Your task to perform on an android device: add a contact Image 0: 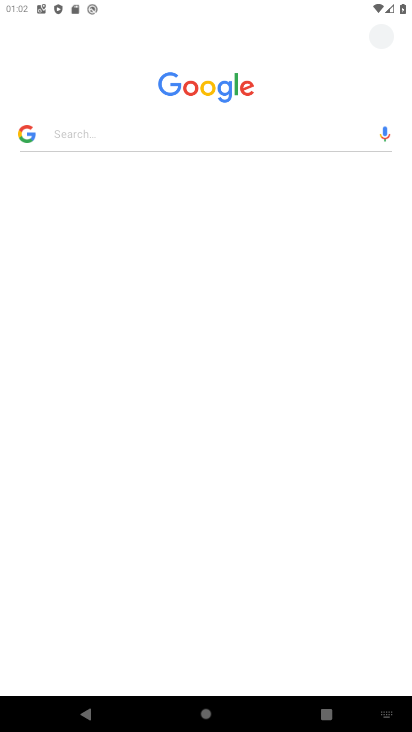
Step 0: press home button
Your task to perform on an android device: add a contact Image 1: 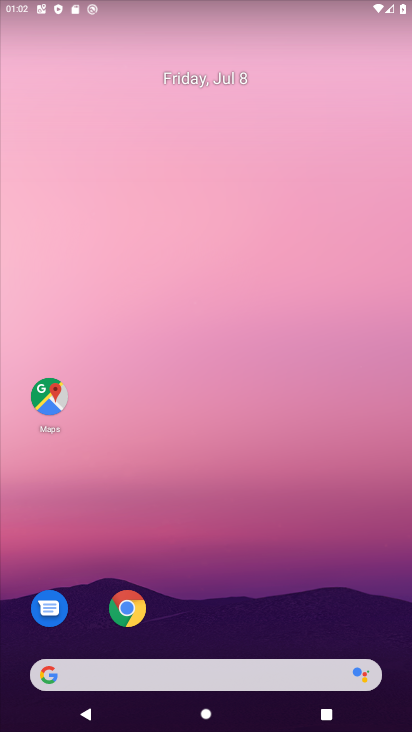
Step 1: drag from (207, 425) to (265, 6)
Your task to perform on an android device: add a contact Image 2: 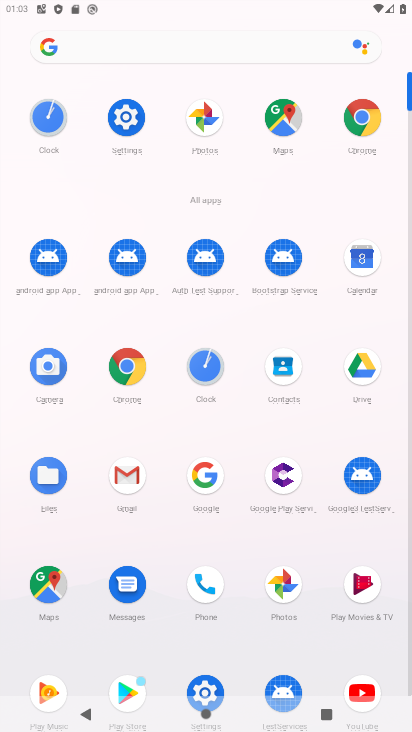
Step 2: click (280, 367)
Your task to perform on an android device: add a contact Image 3: 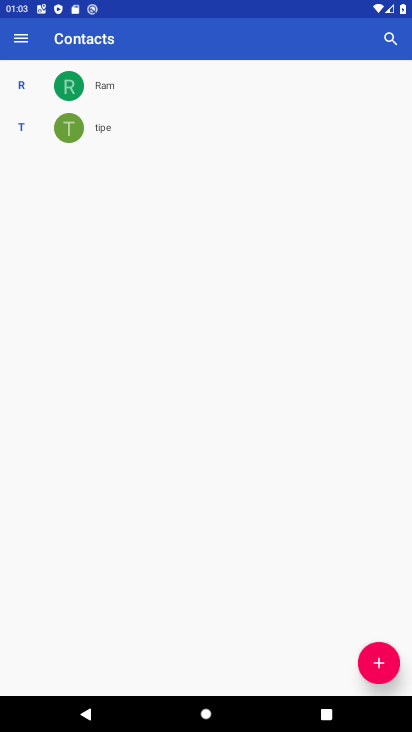
Step 3: click (383, 662)
Your task to perform on an android device: add a contact Image 4: 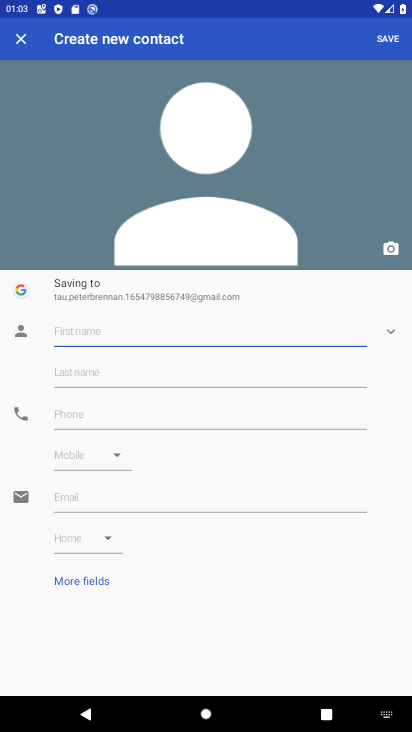
Step 4: type "vive"
Your task to perform on an android device: add a contact Image 5: 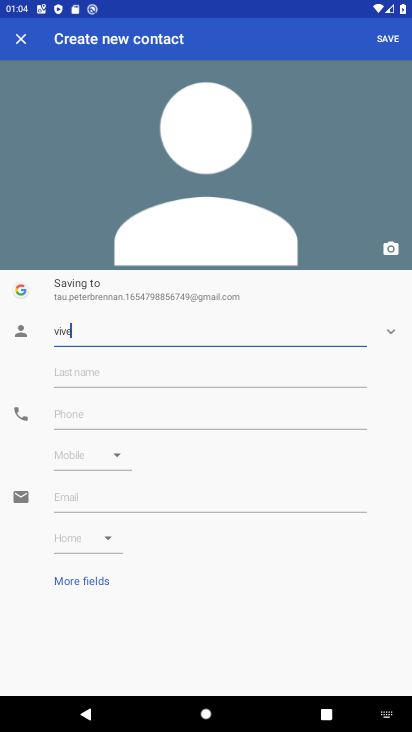
Step 5: click (73, 404)
Your task to perform on an android device: add a contact Image 6: 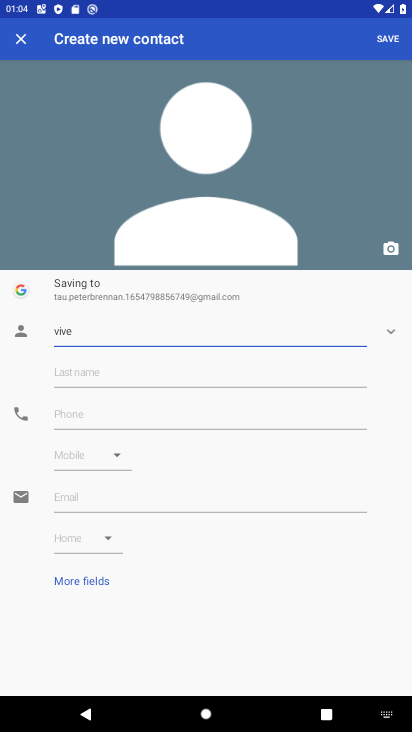
Step 6: click (73, 404)
Your task to perform on an android device: add a contact Image 7: 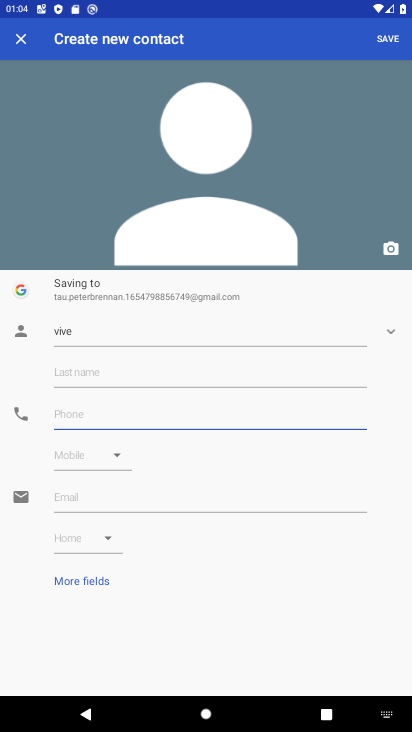
Step 7: type "23570088"
Your task to perform on an android device: add a contact Image 8: 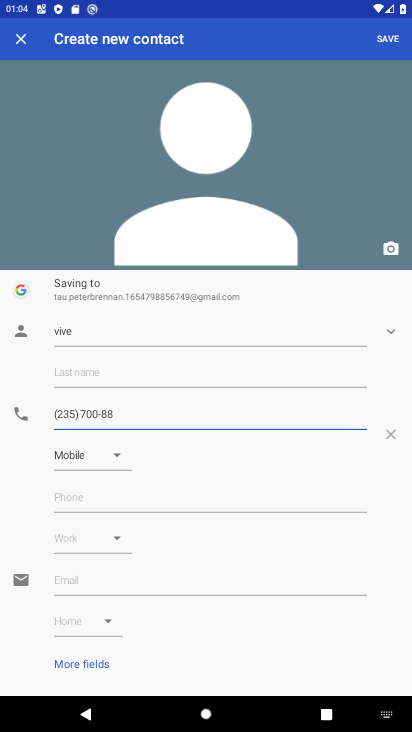
Step 8: click (394, 42)
Your task to perform on an android device: add a contact Image 9: 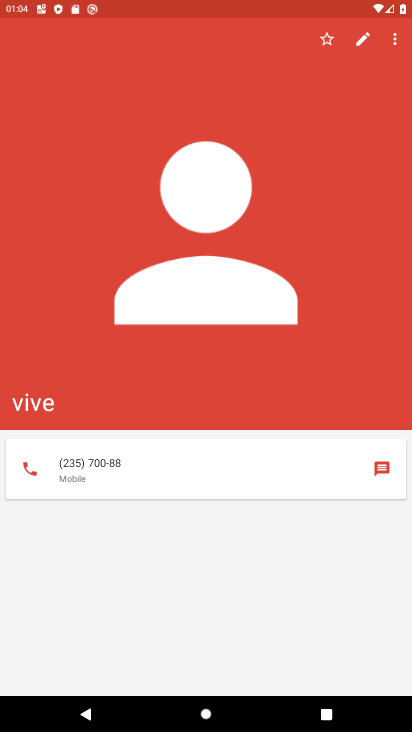
Step 9: task complete